Your task to perform on an android device: Go to calendar. Show me events next week Image 0: 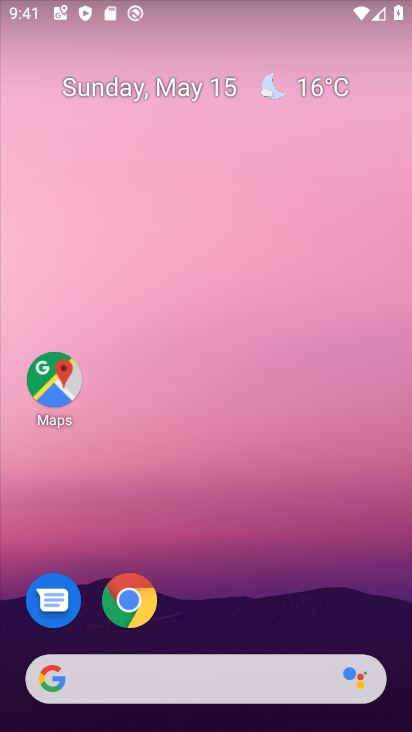
Step 0: drag from (236, 639) to (160, 0)
Your task to perform on an android device: Go to calendar. Show me events next week Image 1: 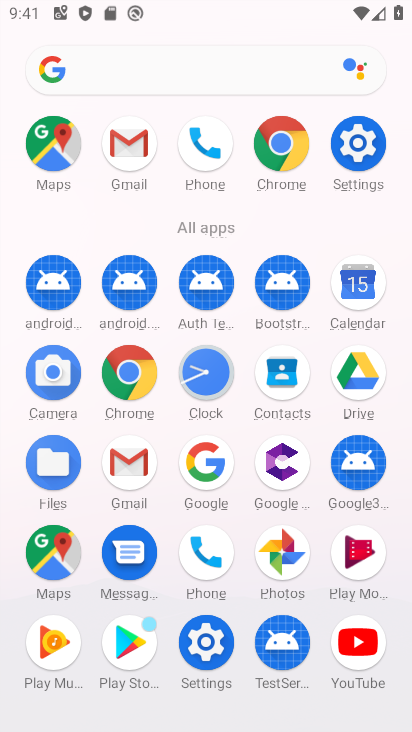
Step 1: click (355, 278)
Your task to perform on an android device: Go to calendar. Show me events next week Image 2: 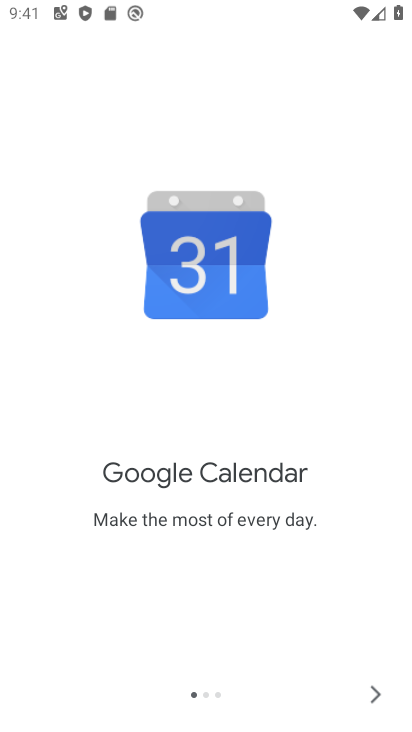
Step 2: click (374, 686)
Your task to perform on an android device: Go to calendar. Show me events next week Image 3: 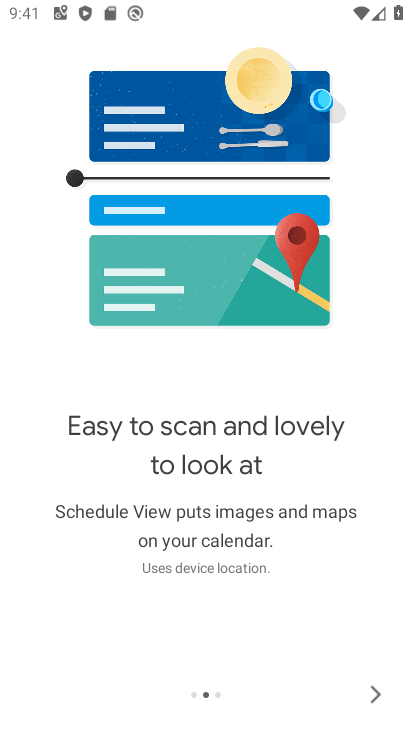
Step 3: click (374, 686)
Your task to perform on an android device: Go to calendar. Show me events next week Image 4: 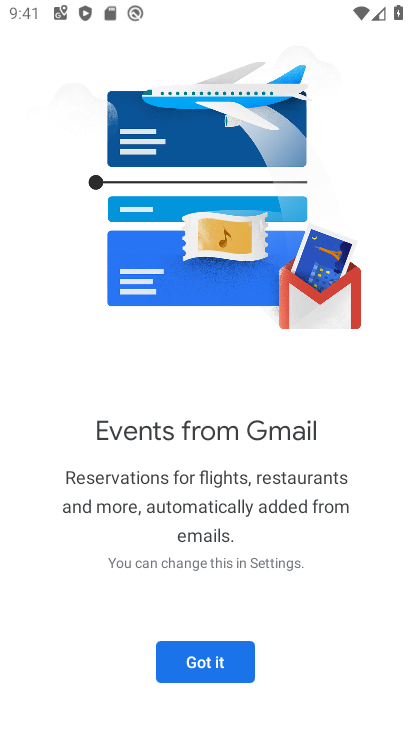
Step 4: click (235, 675)
Your task to perform on an android device: Go to calendar. Show me events next week Image 5: 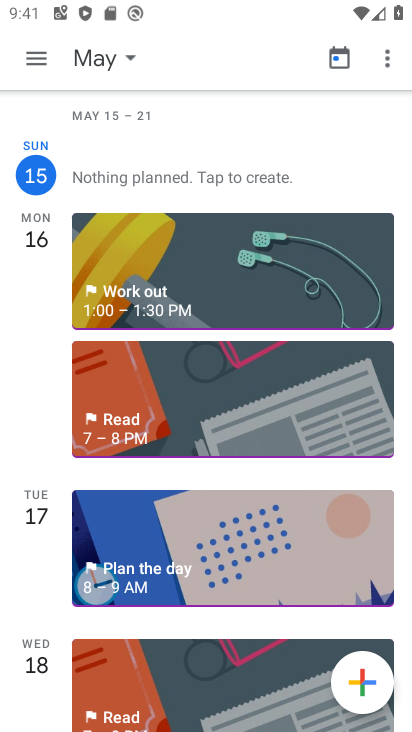
Step 5: click (35, 62)
Your task to perform on an android device: Go to calendar. Show me events next week Image 6: 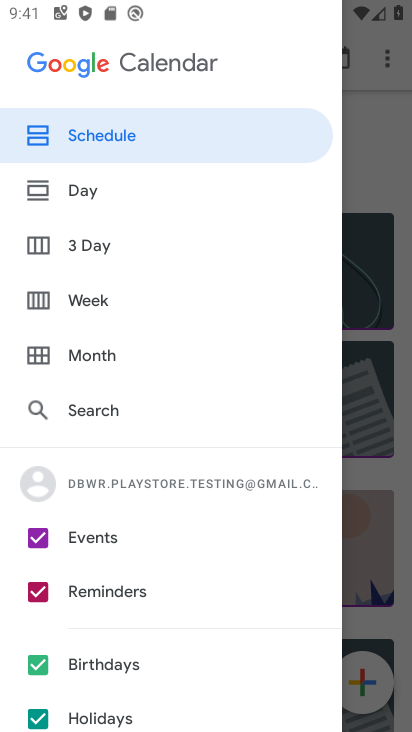
Step 6: click (116, 304)
Your task to perform on an android device: Go to calendar. Show me events next week Image 7: 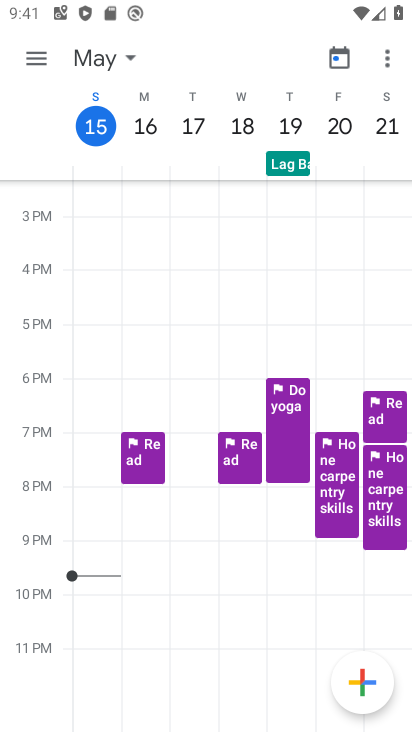
Step 7: task complete